Your task to perform on an android device: Find coffee shops on Maps Image 0: 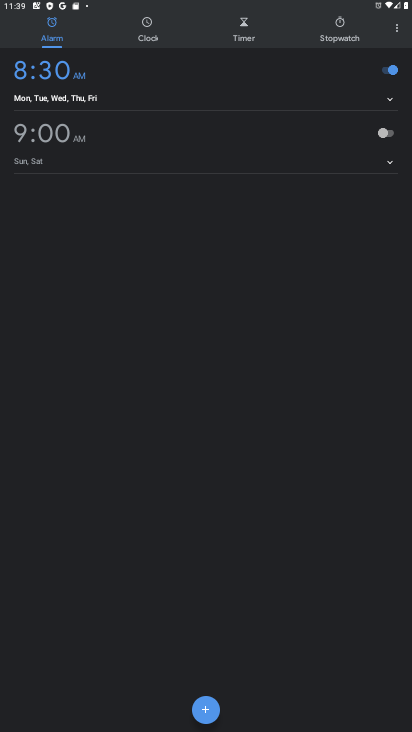
Step 0: press home button
Your task to perform on an android device: Find coffee shops on Maps Image 1: 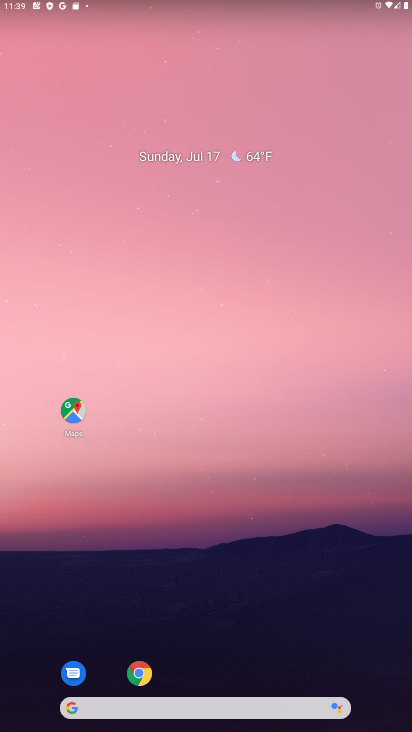
Step 1: click (74, 411)
Your task to perform on an android device: Find coffee shops on Maps Image 2: 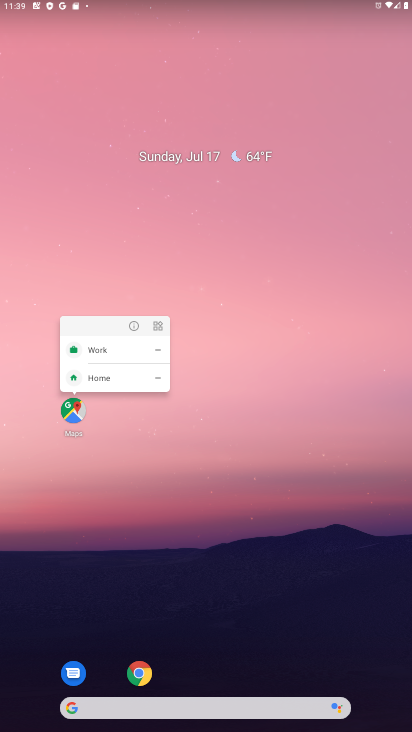
Step 2: click (74, 411)
Your task to perform on an android device: Find coffee shops on Maps Image 3: 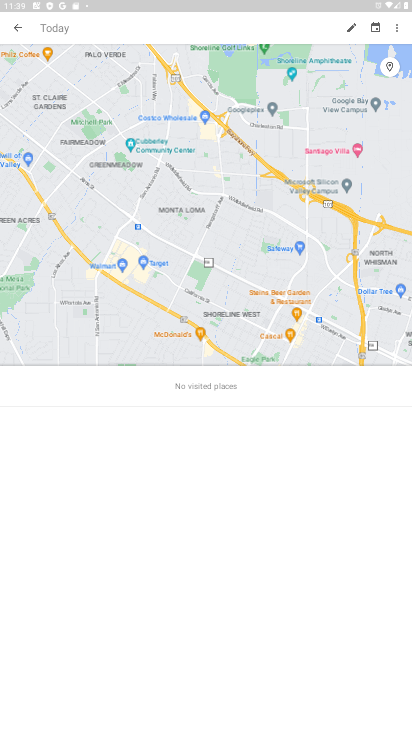
Step 3: click (294, 22)
Your task to perform on an android device: Find coffee shops on Maps Image 4: 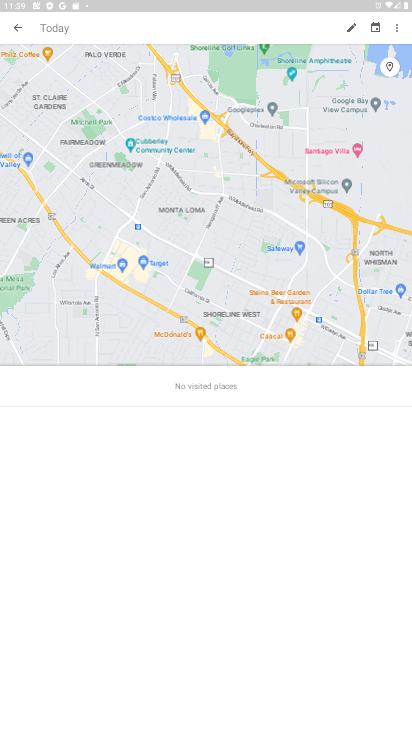
Step 4: click (157, 31)
Your task to perform on an android device: Find coffee shops on Maps Image 5: 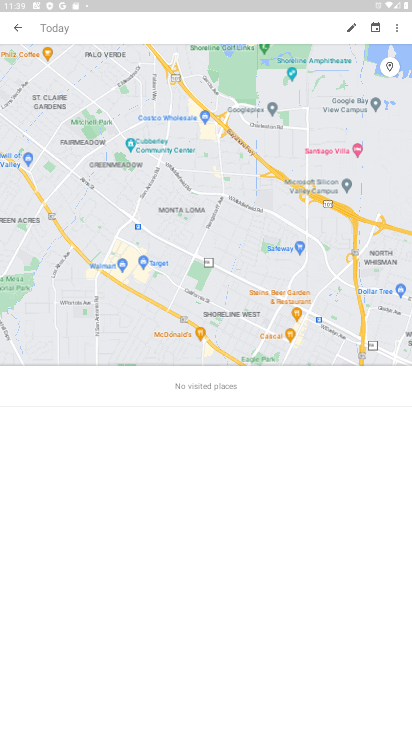
Step 5: press back button
Your task to perform on an android device: Find coffee shops on Maps Image 6: 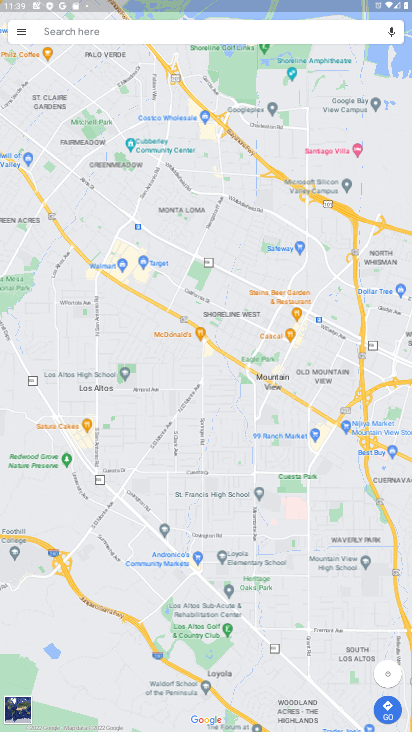
Step 6: click (189, 25)
Your task to perform on an android device: Find coffee shops on Maps Image 7: 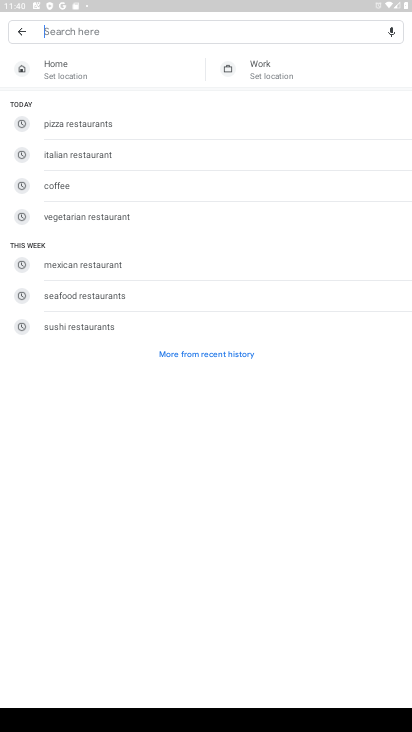
Step 7: click (63, 186)
Your task to perform on an android device: Find coffee shops on Maps Image 8: 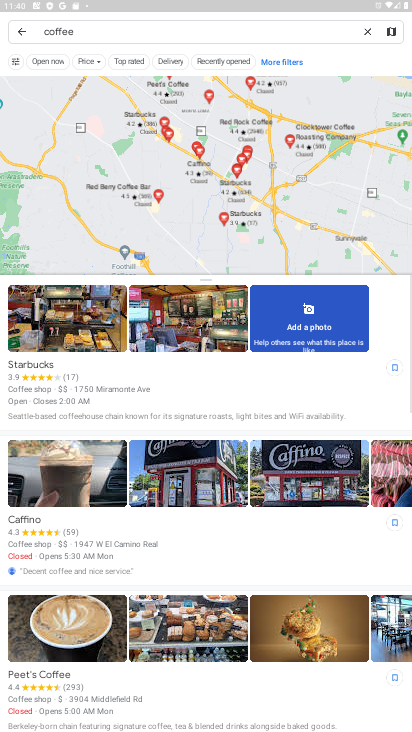
Step 8: task complete